Your task to perform on an android device: remove spam from my inbox in the gmail app Image 0: 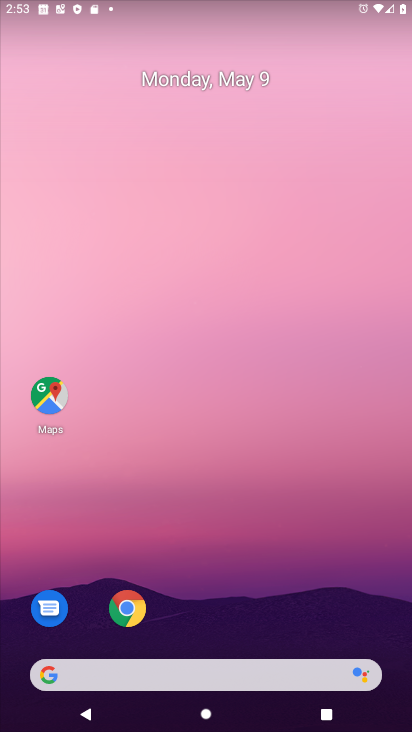
Step 0: drag from (199, 607) to (319, 63)
Your task to perform on an android device: remove spam from my inbox in the gmail app Image 1: 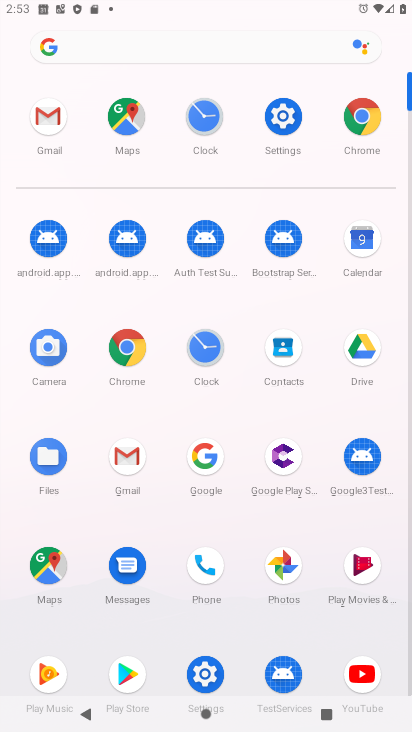
Step 1: click (138, 451)
Your task to perform on an android device: remove spam from my inbox in the gmail app Image 2: 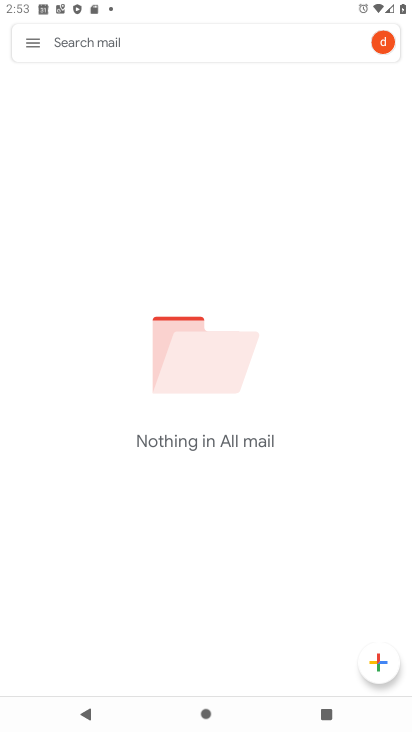
Step 2: click (26, 42)
Your task to perform on an android device: remove spam from my inbox in the gmail app Image 3: 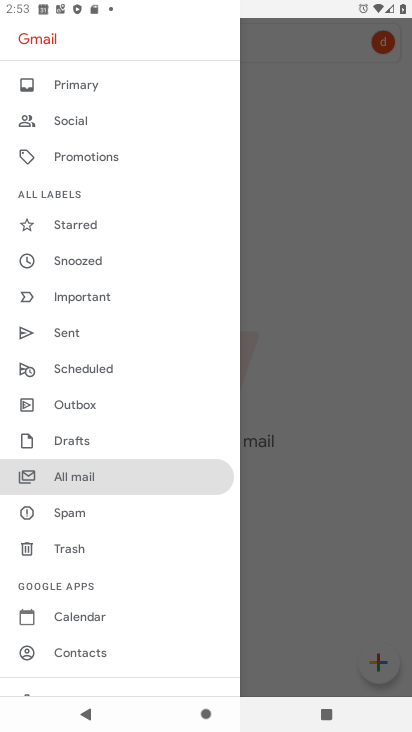
Step 3: click (110, 521)
Your task to perform on an android device: remove spam from my inbox in the gmail app Image 4: 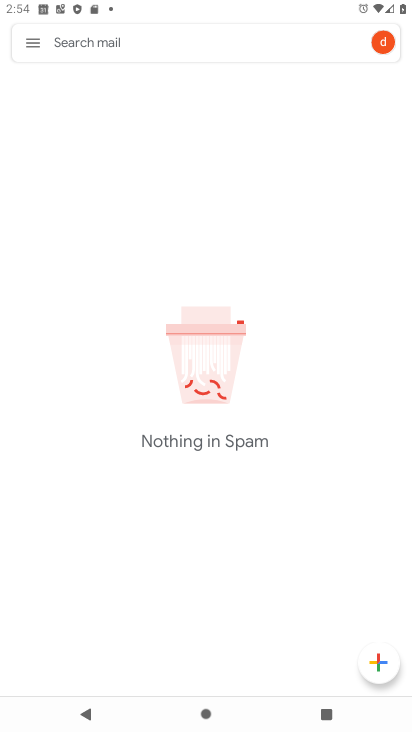
Step 4: task complete